Your task to perform on an android device: Search for seafood restaurants on Google Maps Image 0: 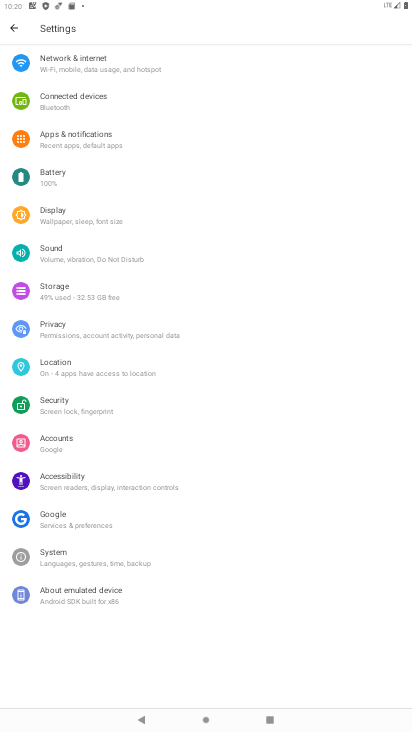
Step 0: press home button
Your task to perform on an android device: Search for seafood restaurants on Google Maps Image 1: 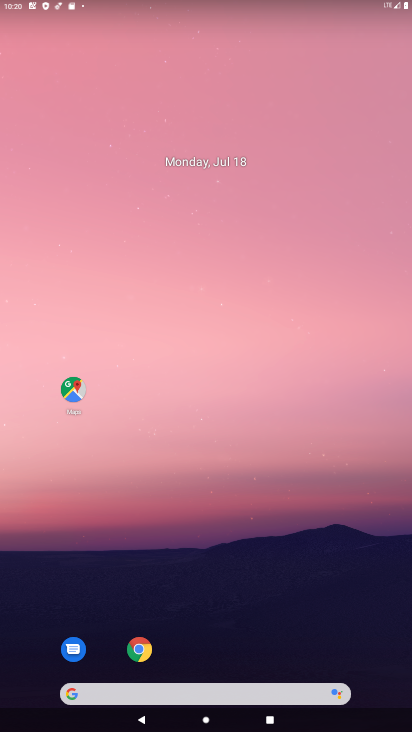
Step 1: click (76, 389)
Your task to perform on an android device: Search for seafood restaurants on Google Maps Image 2: 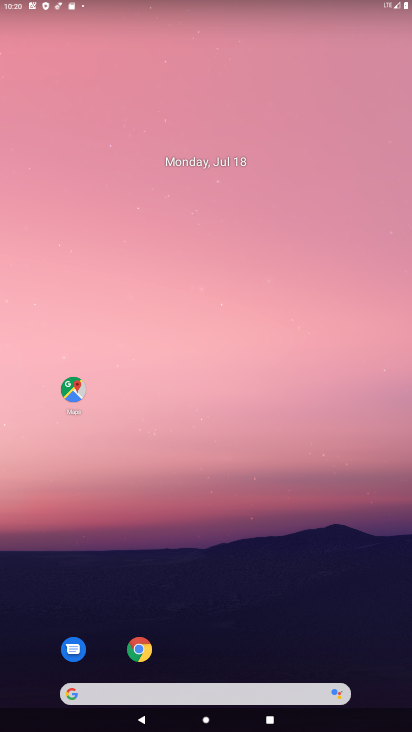
Step 2: click (76, 389)
Your task to perform on an android device: Search for seafood restaurants on Google Maps Image 3: 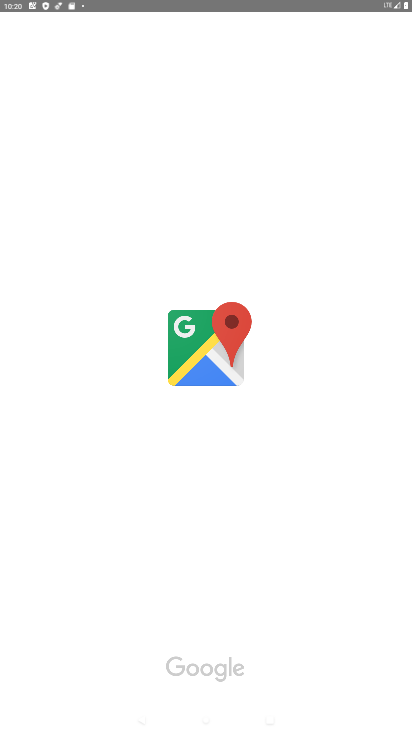
Step 3: click (76, 389)
Your task to perform on an android device: Search for seafood restaurants on Google Maps Image 4: 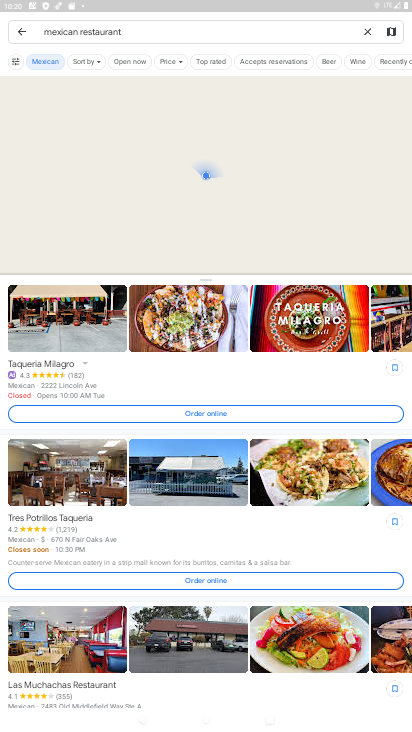
Step 4: click (369, 29)
Your task to perform on an android device: Search for seafood restaurants on Google Maps Image 5: 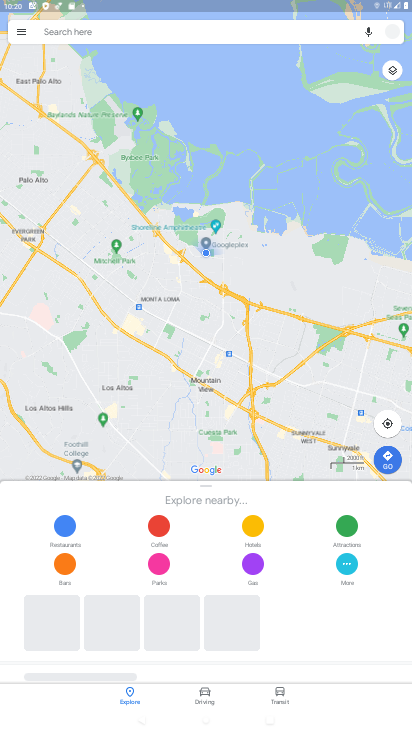
Step 5: click (253, 35)
Your task to perform on an android device: Search for seafood restaurants on Google Maps Image 6: 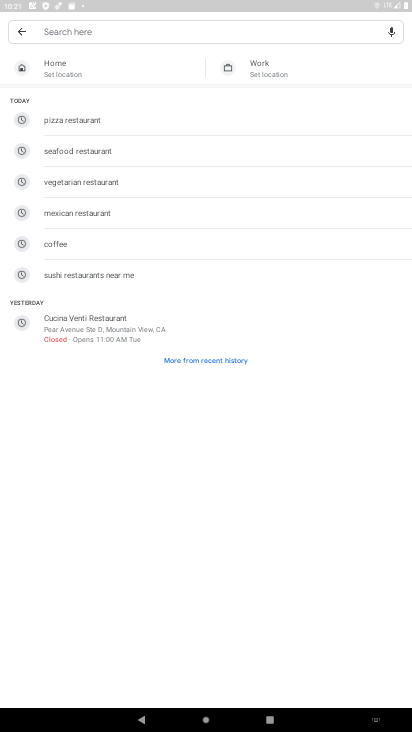
Step 6: click (82, 148)
Your task to perform on an android device: Search for seafood restaurants on Google Maps Image 7: 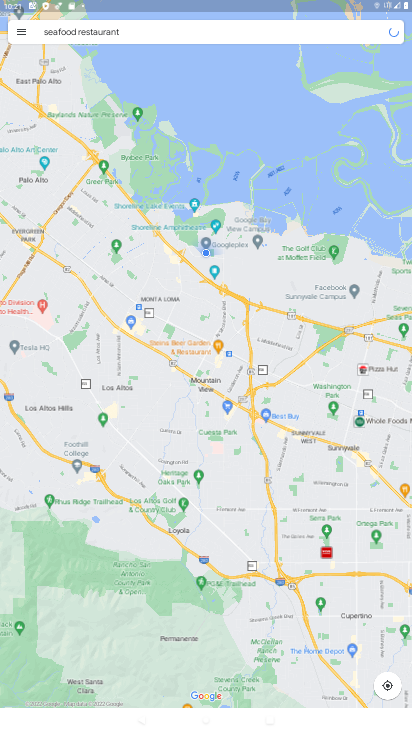
Step 7: task complete